Your task to perform on an android device: Search for vegetarian restaurants on Maps Image 0: 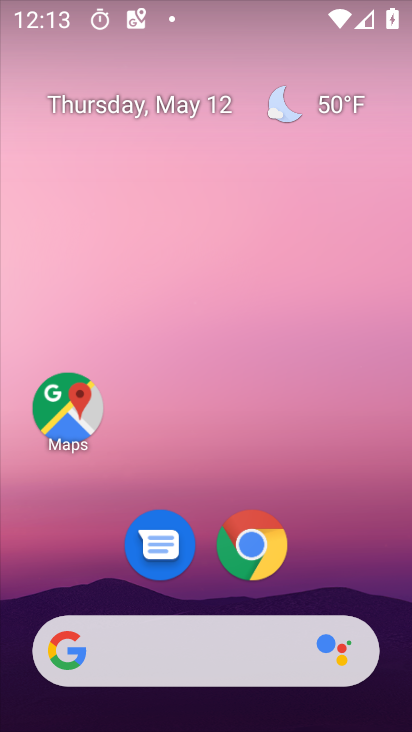
Step 0: click (73, 427)
Your task to perform on an android device: Search for vegetarian restaurants on Maps Image 1: 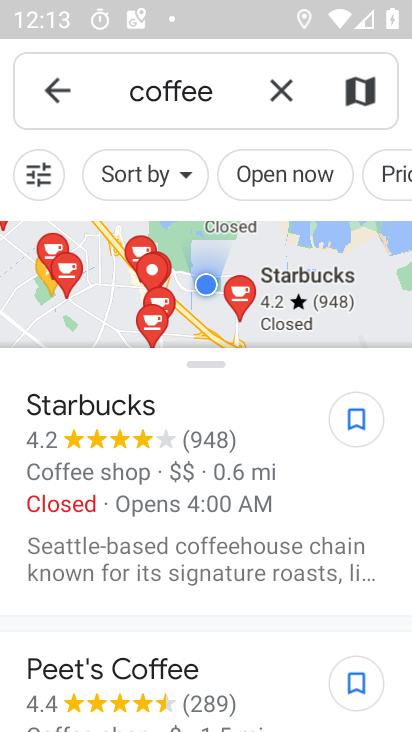
Step 1: click (280, 94)
Your task to perform on an android device: Search for vegetarian restaurants on Maps Image 2: 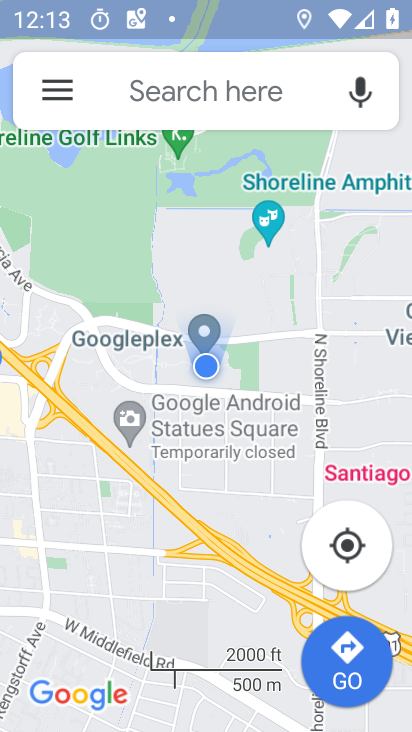
Step 2: click (222, 97)
Your task to perform on an android device: Search for vegetarian restaurants on Maps Image 3: 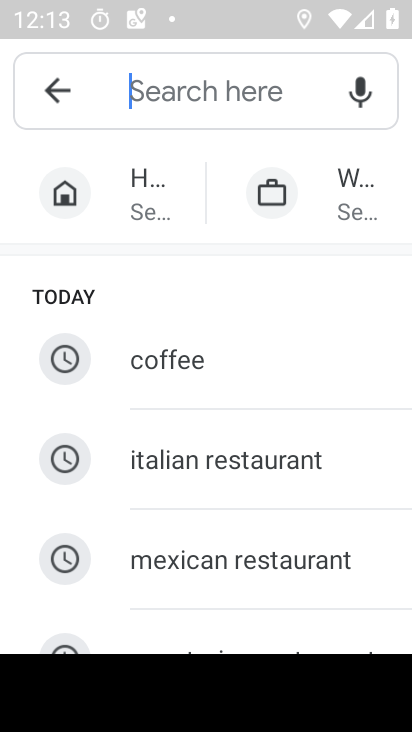
Step 3: drag from (293, 492) to (327, 305)
Your task to perform on an android device: Search for vegetarian restaurants on Maps Image 4: 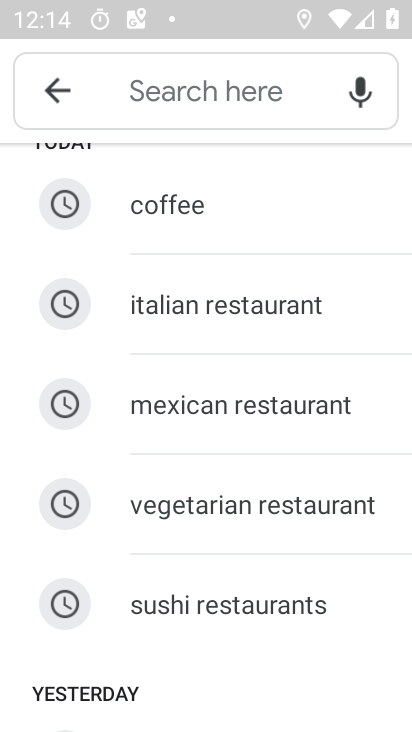
Step 4: click (258, 509)
Your task to perform on an android device: Search for vegetarian restaurants on Maps Image 5: 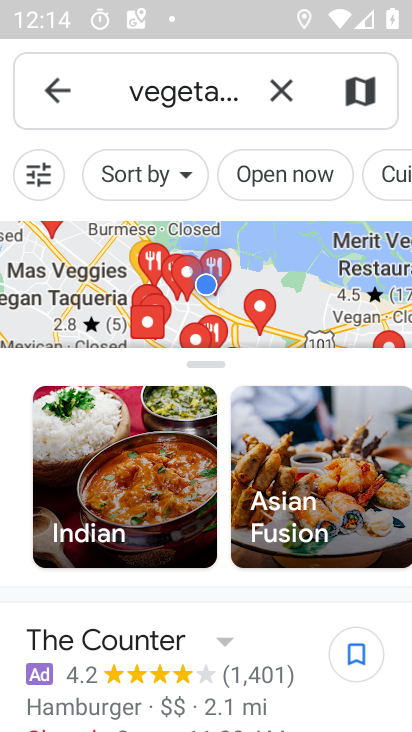
Step 5: task complete